Your task to perform on an android device: Go to location settings Image 0: 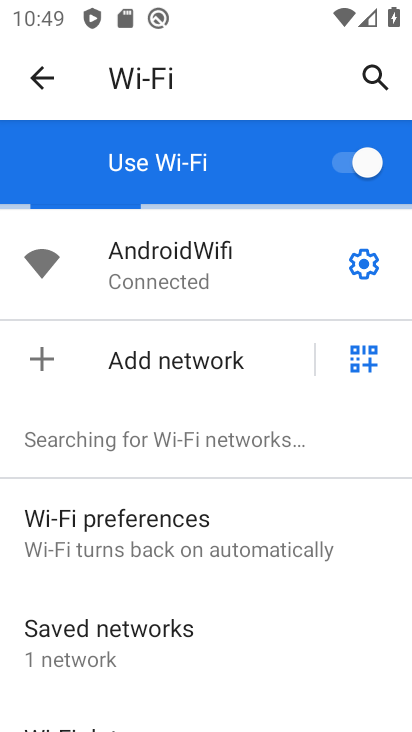
Step 0: press home button
Your task to perform on an android device: Go to location settings Image 1: 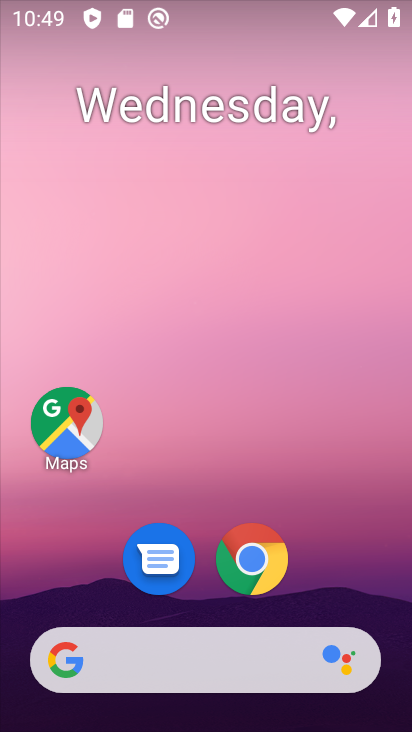
Step 1: drag from (228, 521) to (259, 213)
Your task to perform on an android device: Go to location settings Image 2: 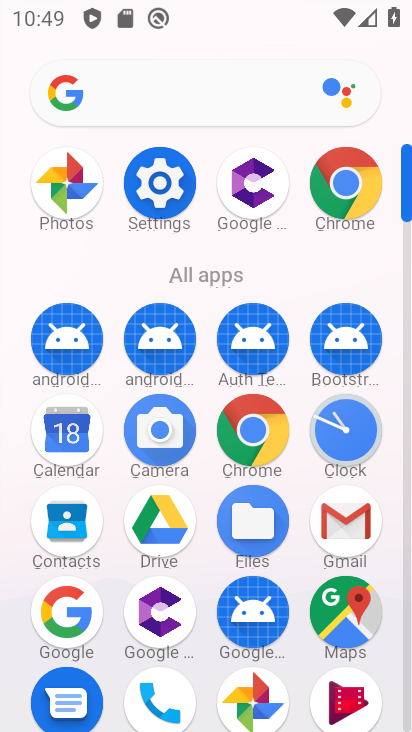
Step 2: click (162, 178)
Your task to perform on an android device: Go to location settings Image 3: 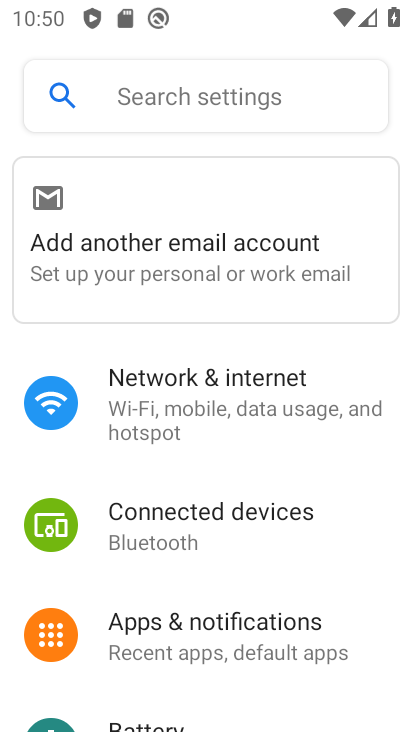
Step 3: drag from (182, 616) to (236, 260)
Your task to perform on an android device: Go to location settings Image 4: 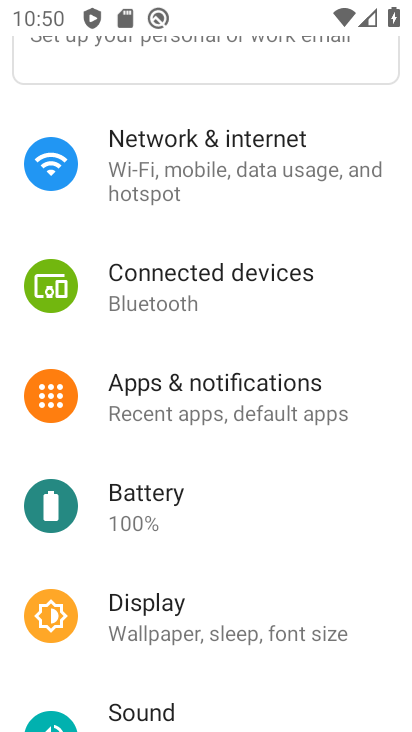
Step 4: drag from (191, 550) to (243, 286)
Your task to perform on an android device: Go to location settings Image 5: 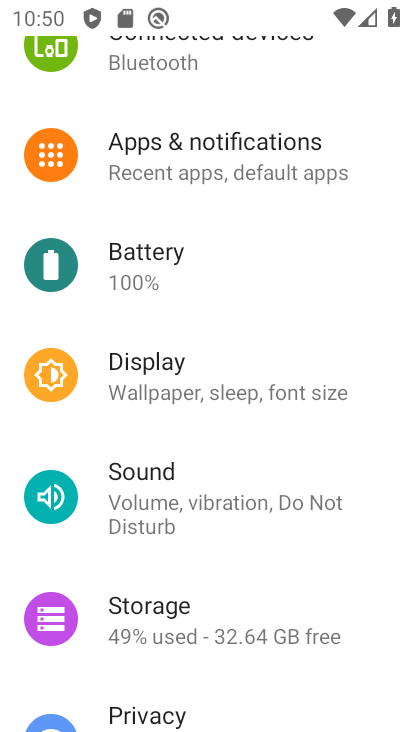
Step 5: drag from (168, 574) to (236, 197)
Your task to perform on an android device: Go to location settings Image 6: 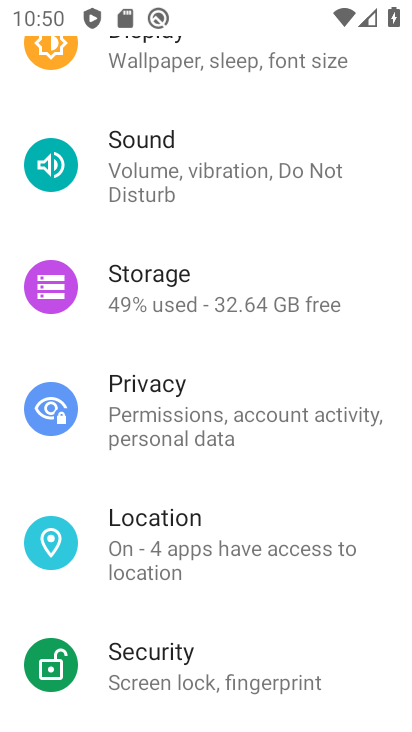
Step 6: click (181, 523)
Your task to perform on an android device: Go to location settings Image 7: 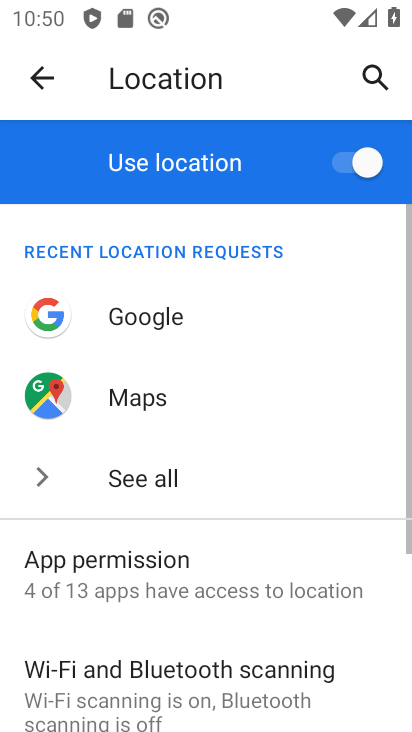
Step 7: task complete